Your task to perform on an android device: Go to Maps Image 0: 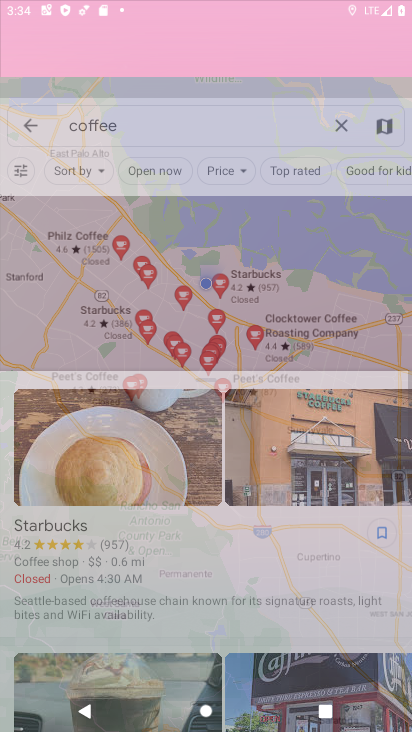
Step 0: drag from (235, 352) to (219, 90)
Your task to perform on an android device: Go to Maps Image 1: 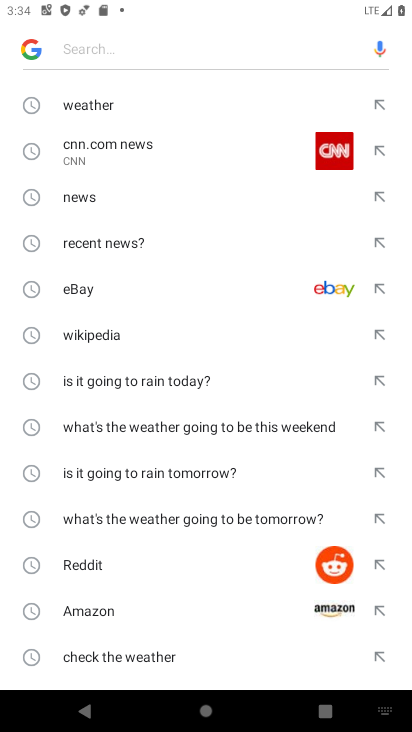
Step 1: press home button
Your task to perform on an android device: Go to Maps Image 2: 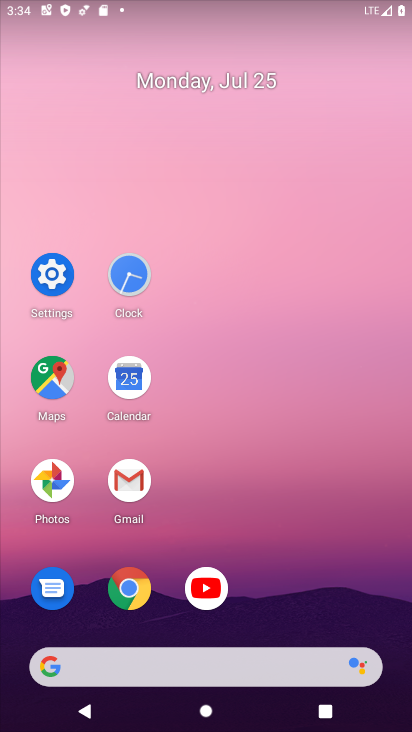
Step 2: click (44, 374)
Your task to perform on an android device: Go to Maps Image 3: 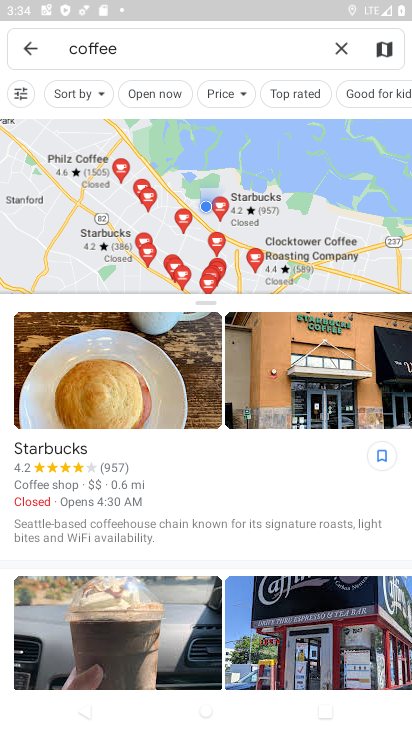
Step 3: click (26, 48)
Your task to perform on an android device: Go to Maps Image 4: 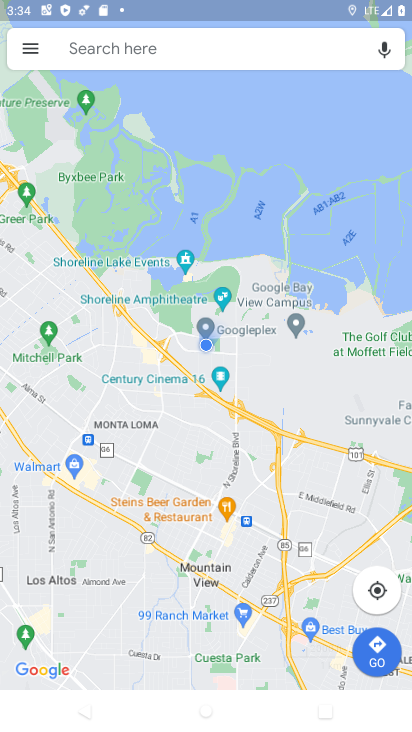
Step 4: task complete